Your task to perform on an android device: Open battery settings Image 0: 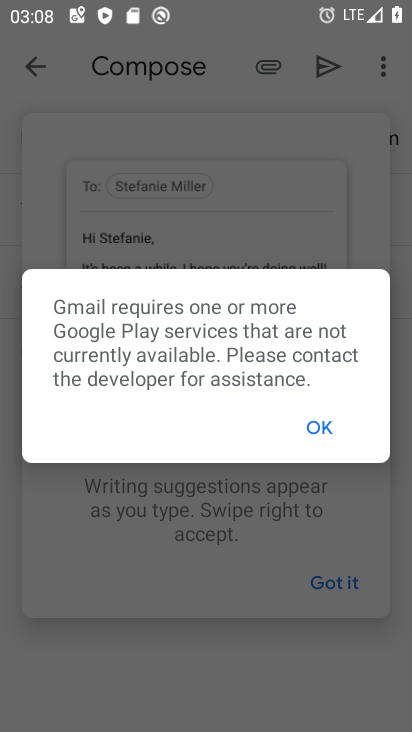
Step 0: press home button
Your task to perform on an android device: Open battery settings Image 1: 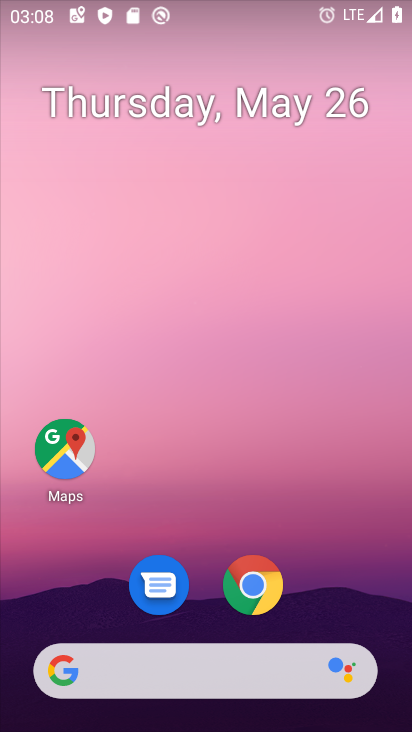
Step 1: drag from (221, 510) to (242, 101)
Your task to perform on an android device: Open battery settings Image 2: 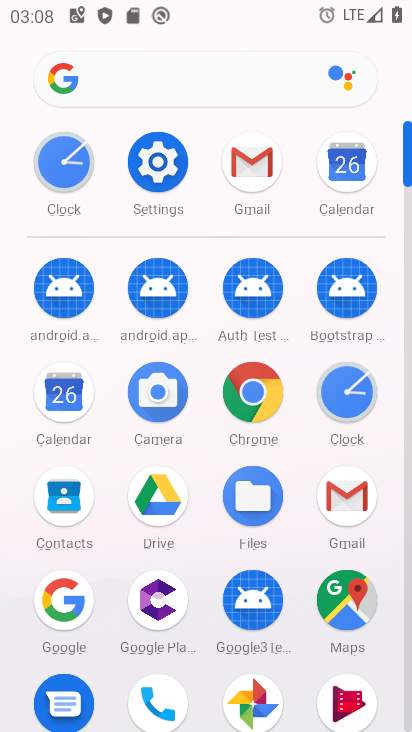
Step 2: click (158, 163)
Your task to perform on an android device: Open battery settings Image 3: 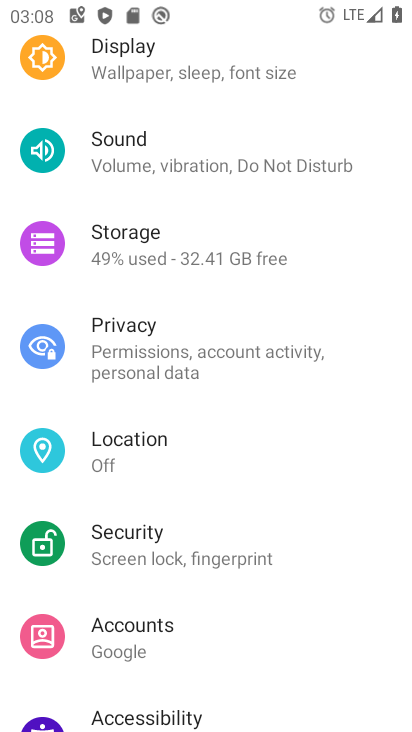
Step 3: drag from (220, 219) to (256, 654)
Your task to perform on an android device: Open battery settings Image 4: 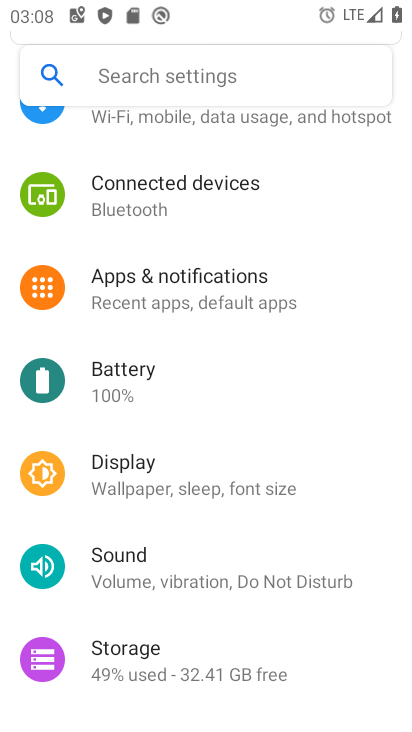
Step 4: click (191, 377)
Your task to perform on an android device: Open battery settings Image 5: 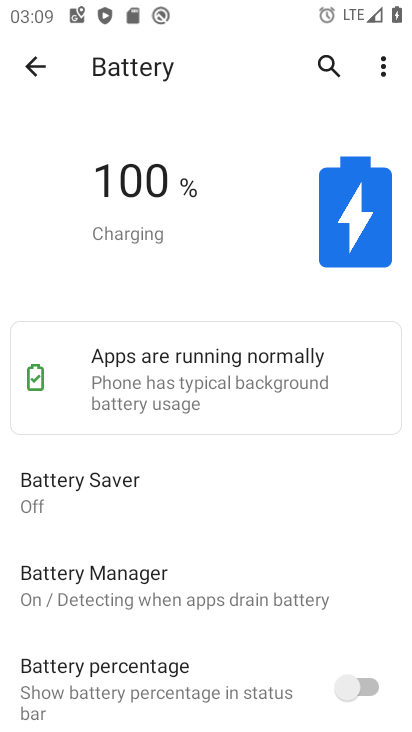
Step 5: task complete